Your task to perform on an android device: change your default location settings in chrome Image 0: 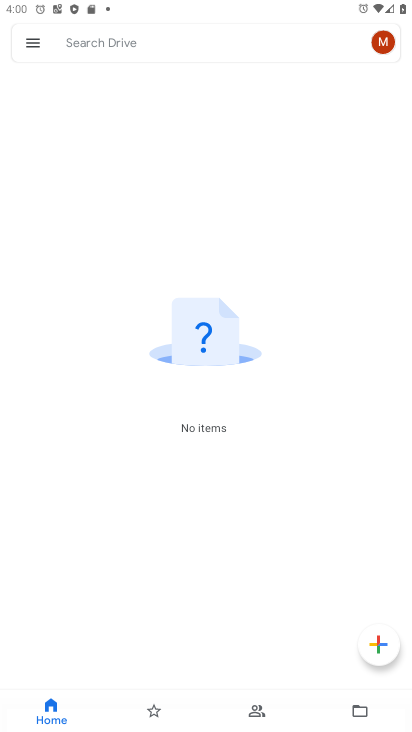
Step 0: press home button
Your task to perform on an android device: change your default location settings in chrome Image 1: 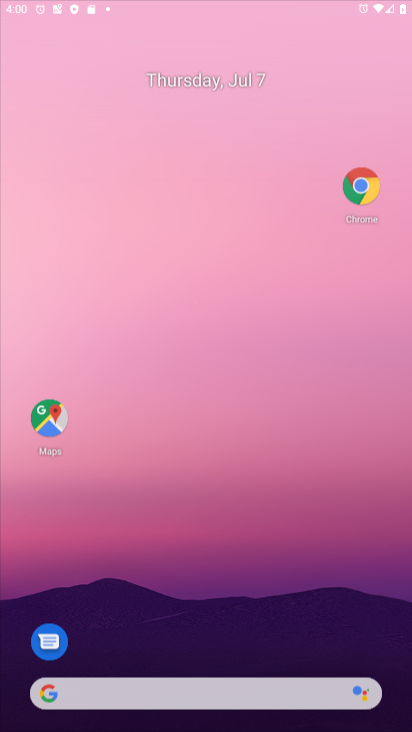
Step 1: drag from (280, 634) to (313, 160)
Your task to perform on an android device: change your default location settings in chrome Image 2: 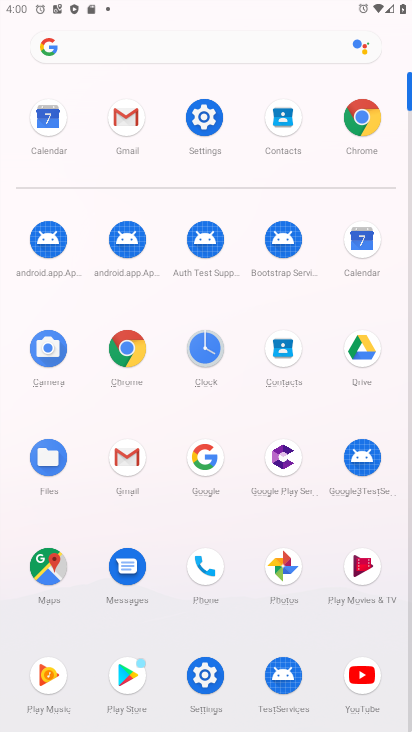
Step 2: click (381, 122)
Your task to perform on an android device: change your default location settings in chrome Image 3: 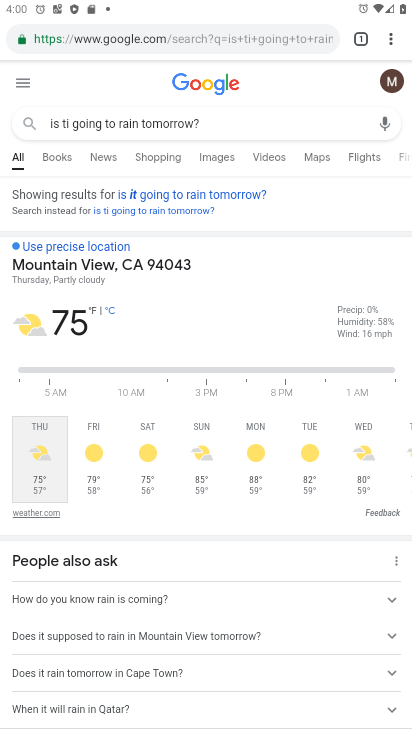
Step 3: press back button
Your task to perform on an android device: change your default location settings in chrome Image 4: 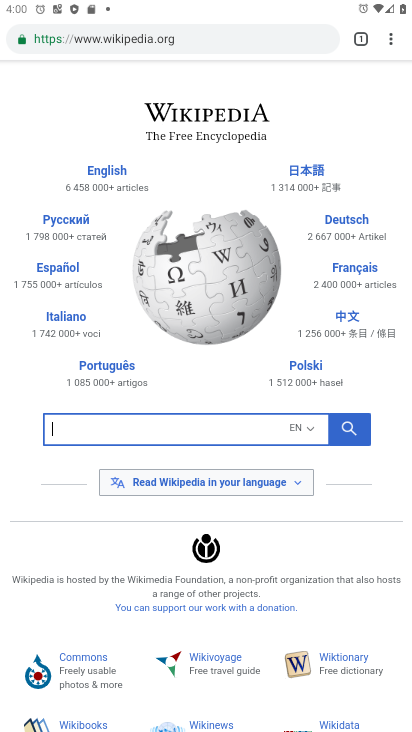
Step 4: press home button
Your task to perform on an android device: change your default location settings in chrome Image 5: 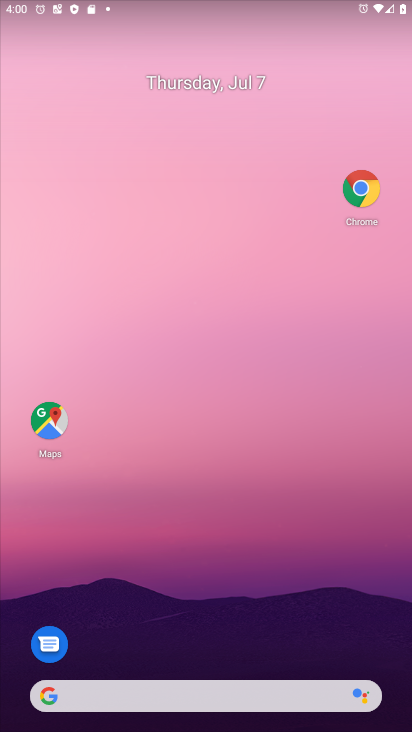
Step 5: click (359, 181)
Your task to perform on an android device: change your default location settings in chrome Image 6: 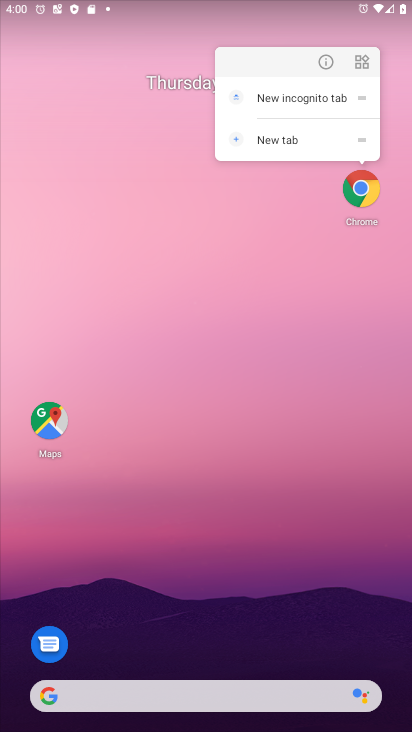
Step 6: click (311, 58)
Your task to perform on an android device: change your default location settings in chrome Image 7: 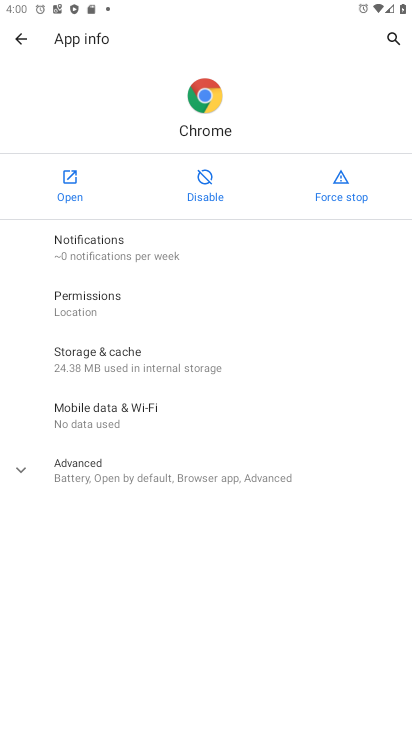
Step 7: click (115, 315)
Your task to perform on an android device: change your default location settings in chrome Image 8: 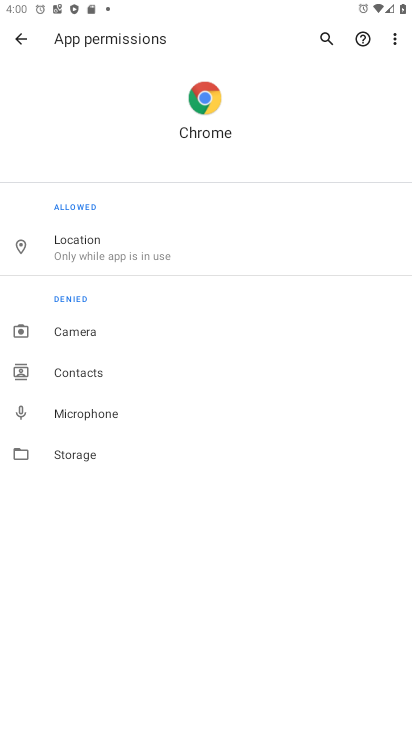
Step 8: click (132, 232)
Your task to perform on an android device: change your default location settings in chrome Image 9: 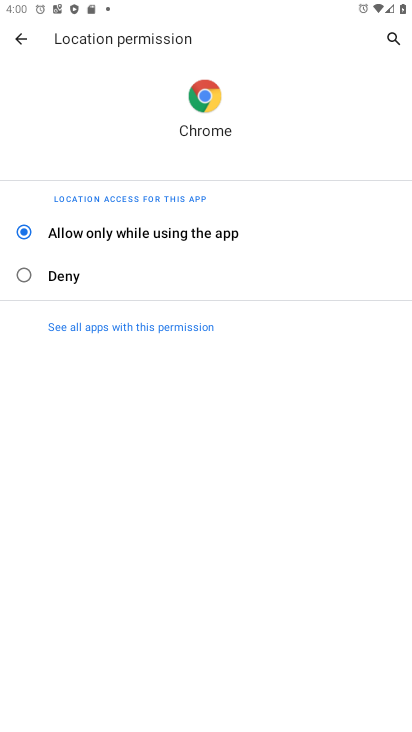
Step 9: click (99, 265)
Your task to perform on an android device: change your default location settings in chrome Image 10: 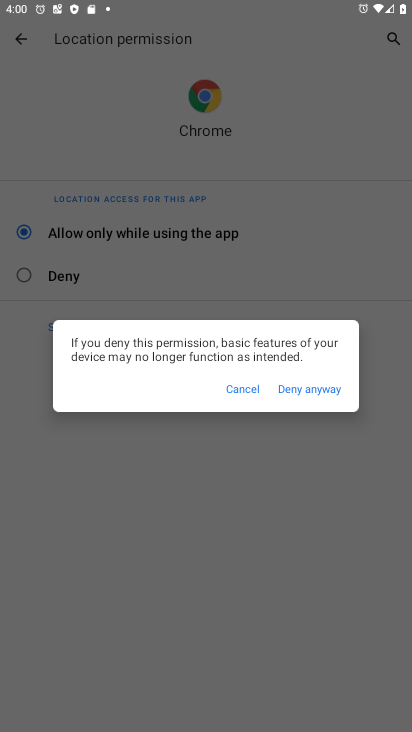
Step 10: click (310, 402)
Your task to perform on an android device: change your default location settings in chrome Image 11: 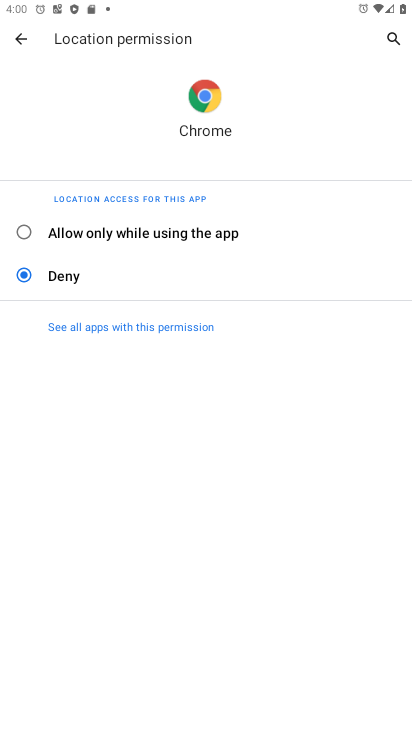
Step 11: task complete